Your task to perform on an android device: What's a good restaurant in New York? Image 0: 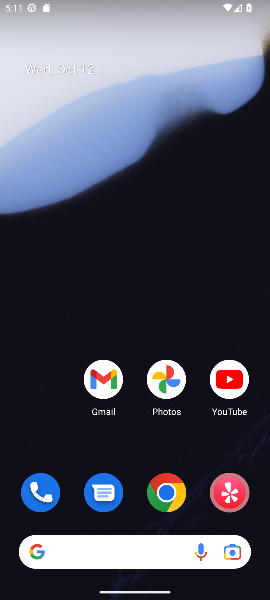
Step 0: click (170, 497)
Your task to perform on an android device: What's a good restaurant in New York? Image 1: 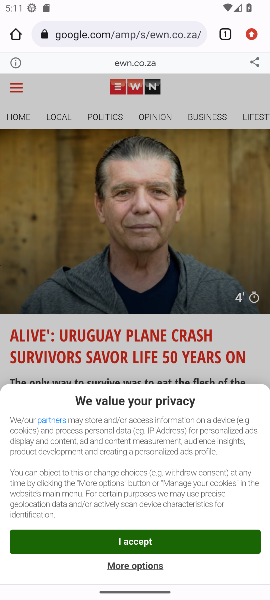
Step 1: click (116, 37)
Your task to perform on an android device: What's a good restaurant in New York? Image 2: 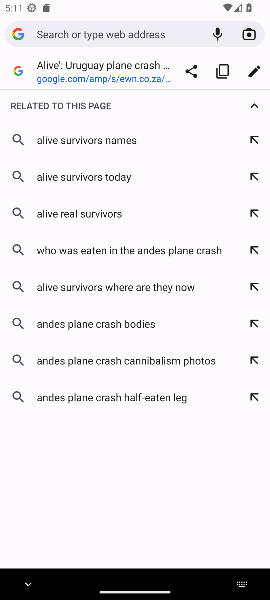
Step 2: type "a good restaurant in New York"
Your task to perform on an android device: What's a good restaurant in New York? Image 3: 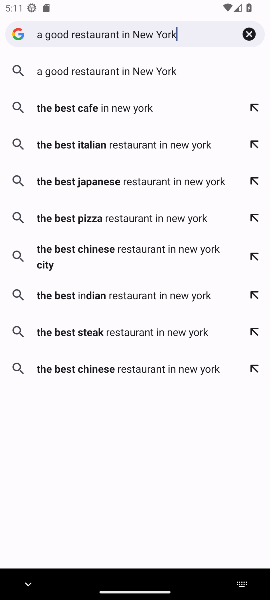
Step 3: click (95, 75)
Your task to perform on an android device: What's a good restaurant in New York? Image 4: 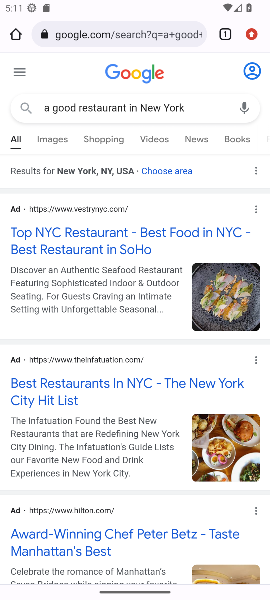
Step 4: task complete